Your task to perform on an android device: toggle wifi Image 0: 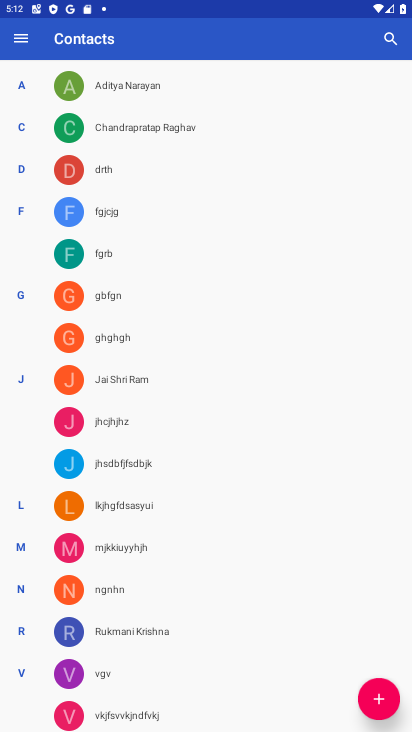
Step 0: press home button
Your task to perform on an android device: toggle wifi Image 1: 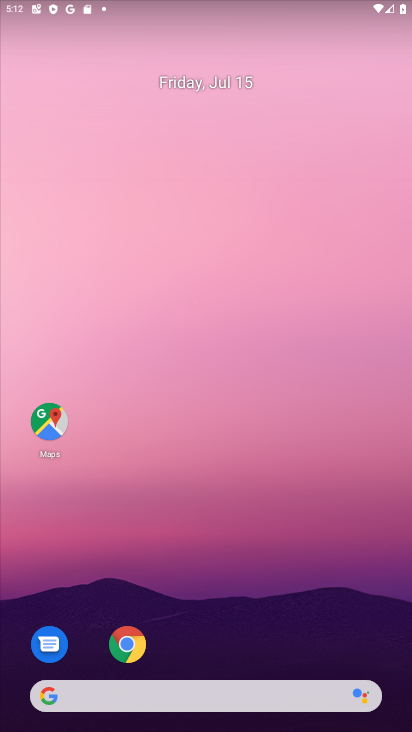
Step 1: drag from (220, 3) to (231, 540)
Your task to perform on an android device: toggle wifi Image 2: 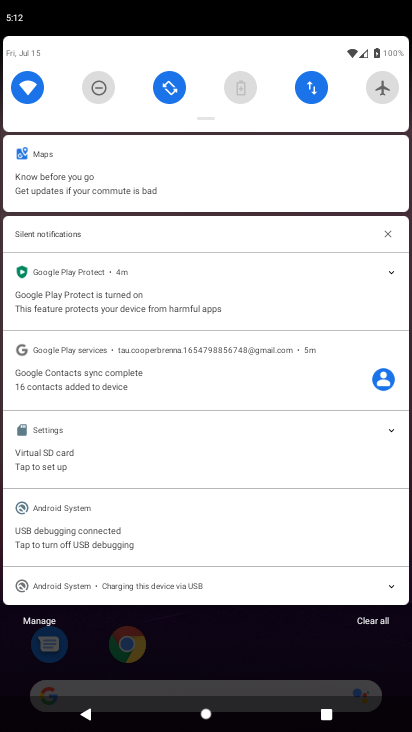
Step 2: click (34, 87)
Your task to perform on an android device: toggle wifi Image 3: 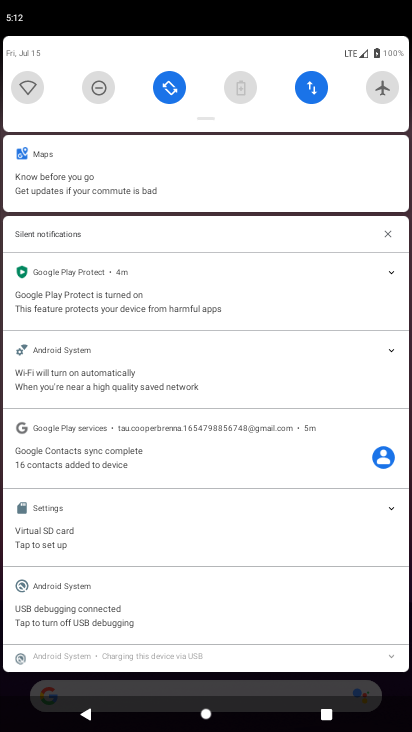
Step 3: drag from (234, 585) to (181, 167)
Your task to perform on an android device: toggle wifi Image 4: 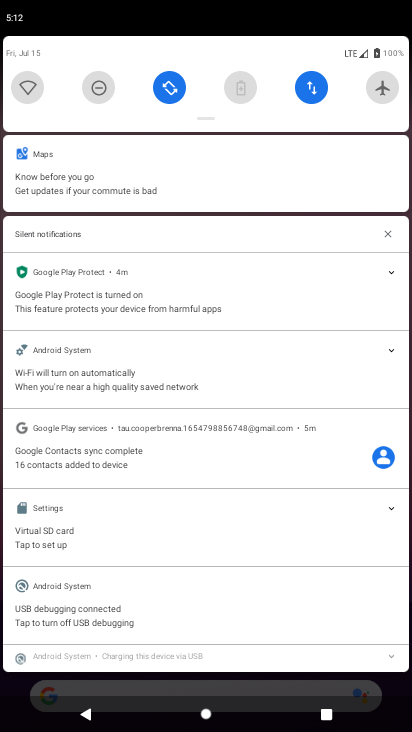
Step 4: click (85, 725)
Your task to perform on an android device: toggle wifi Image 5: 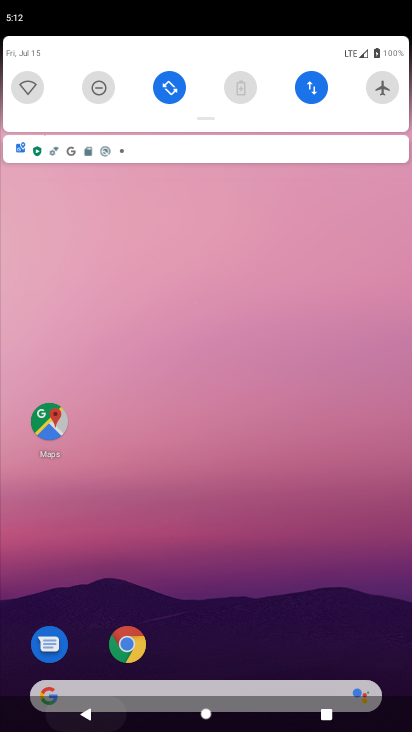
Step 5: click (88, 712)
Your task to perform on an android device: toggle wifi Image 6: 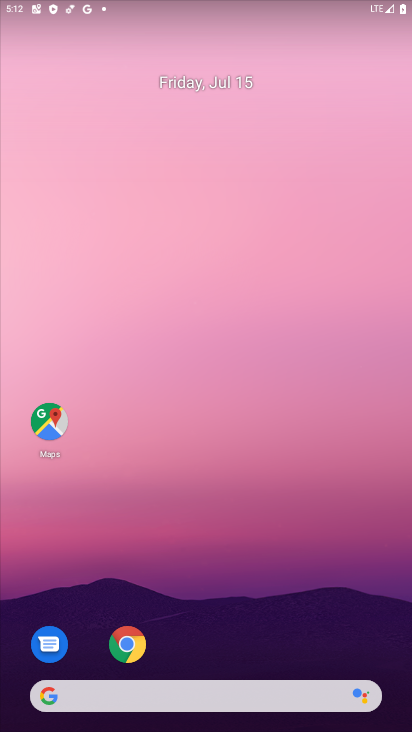
Step 6: task complete